Your task to perform on an android device: Turn off the flashlight Image 0: 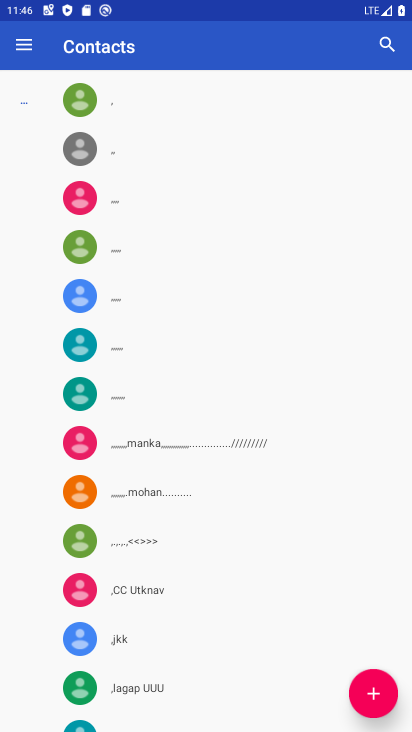
Step 0: press home button
Your task to perform on an android device: Turn off the flashlight Image 1: 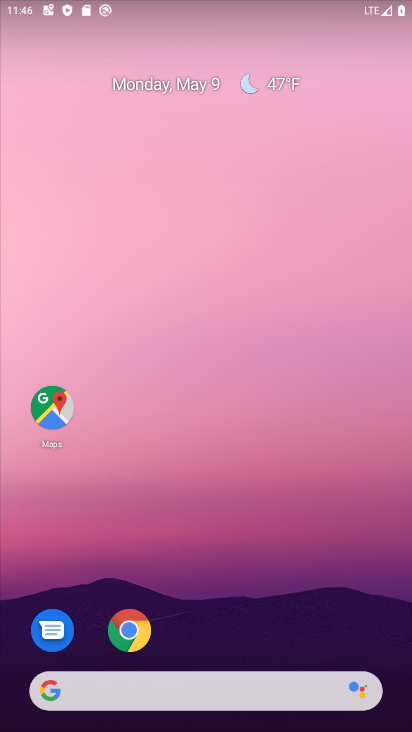
Step 1: task complete